Your task to perform on an android device: Open Maps and search for coffee Image 0: 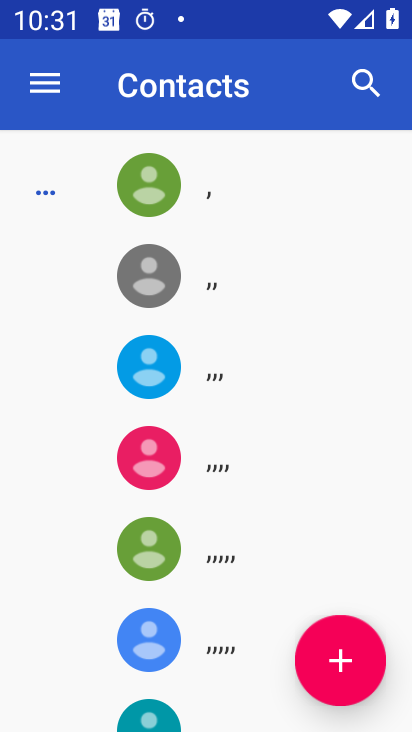
Step 0: press home button
Your task to perform on an android device: Open Maps and search for coffee Image 1: 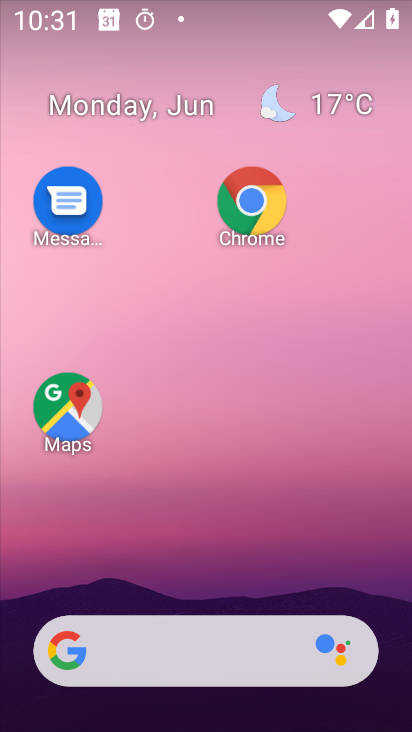
Step 1: click (73, 413)
Your task to perform on an android device: Open Maps and search for coffee Image 2: 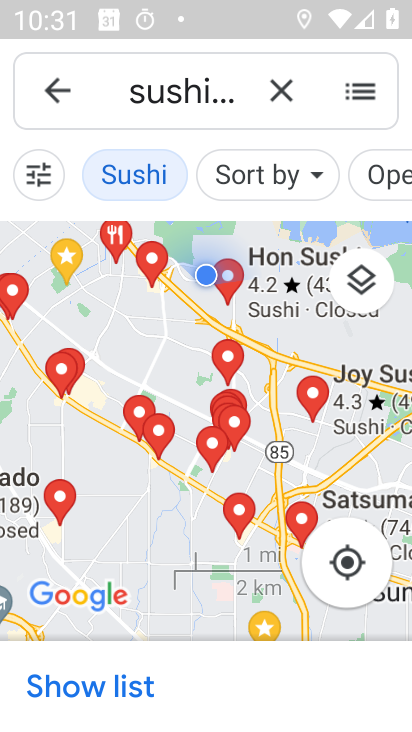
Step 2: click (268, 74)
Your task to perform on an android device: Open Maps and search for coffee Image 3: 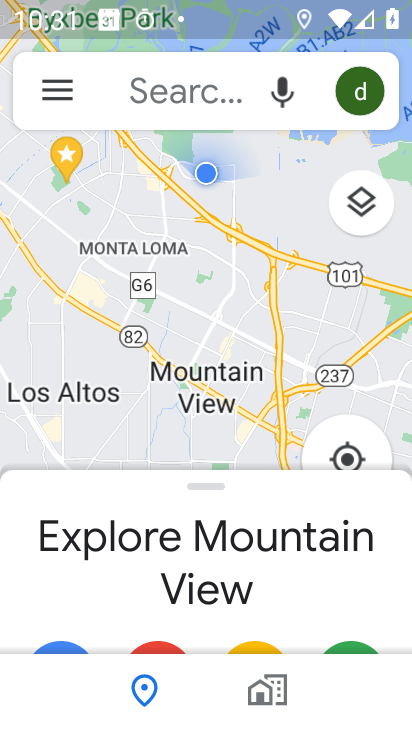
Step 3: click (210, 88)
Your task to perform on an android device: Open Maps and search for coffee Image 4: 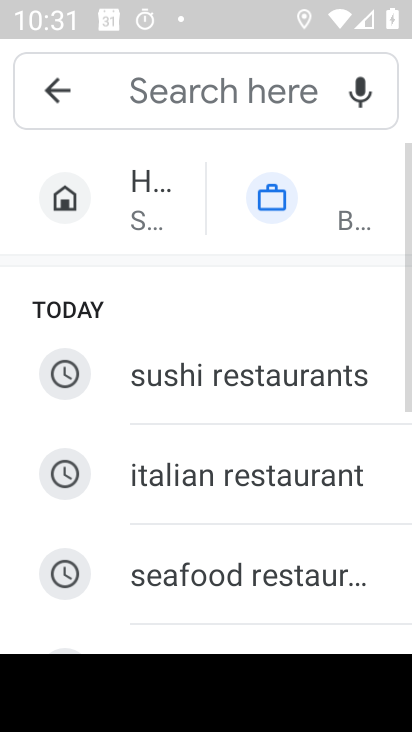
Step 4: drag from (197, 501) to (124, 173)
Your task to perform on an android device: Open Maps and search for coffee Image 5: 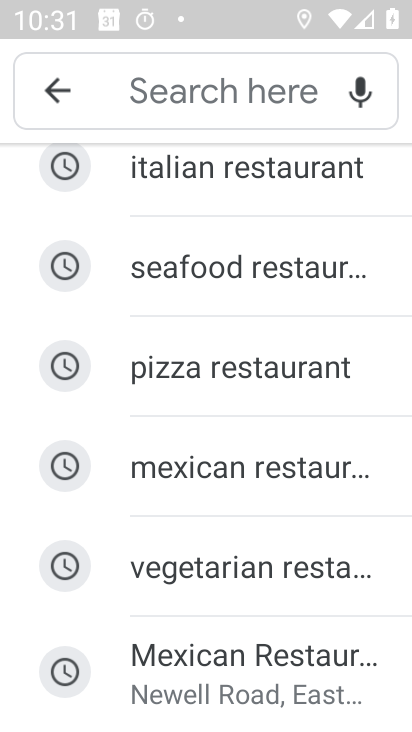
Step 5: click (220, 110)
Your task to perform on an android device: Open Maps and search for coffee Image 6: 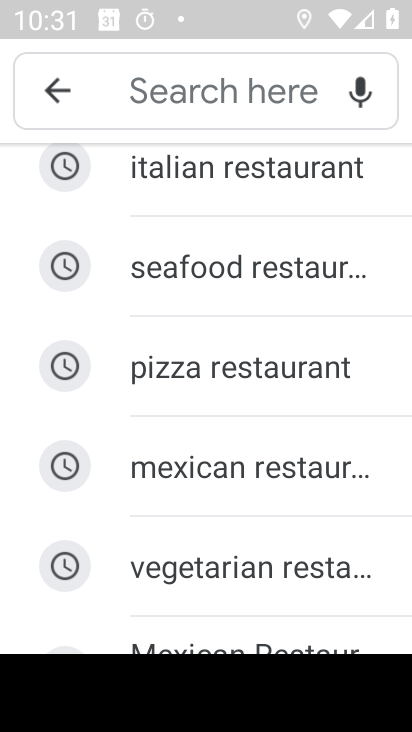
Step 6: type "coffee"
Your task to perform on an android device: Open Maps and search for coffee Image 7: 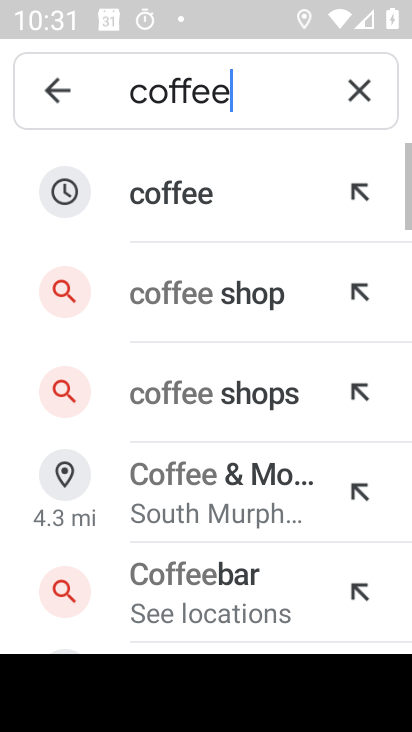
Step 7: click (282, 172)
Your task to perform on an android device: Open Maps and search for coffee Image 8: 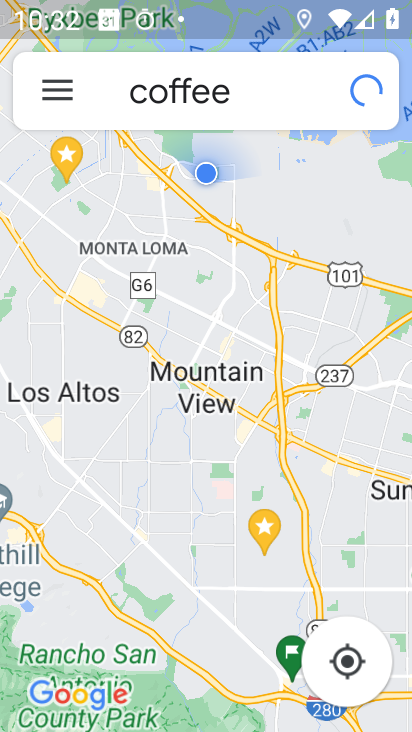
Step 8: task complete